Your task to perform on an android device: search for starred emails in the gmail app Image 0: 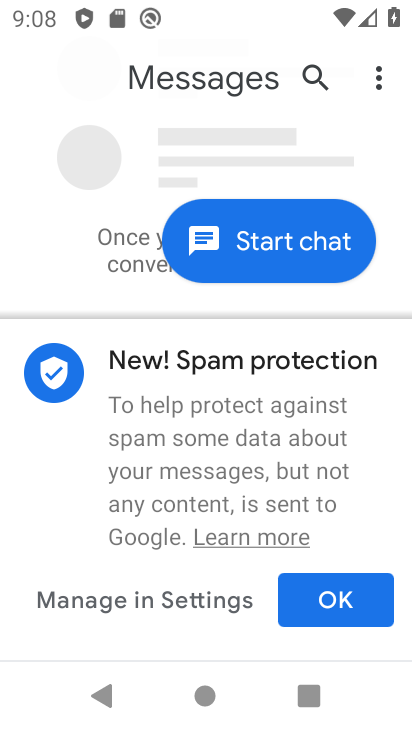
Step 0: press home button
Your task to perform on an android device: search for starred emails in the gmail app Image 1: 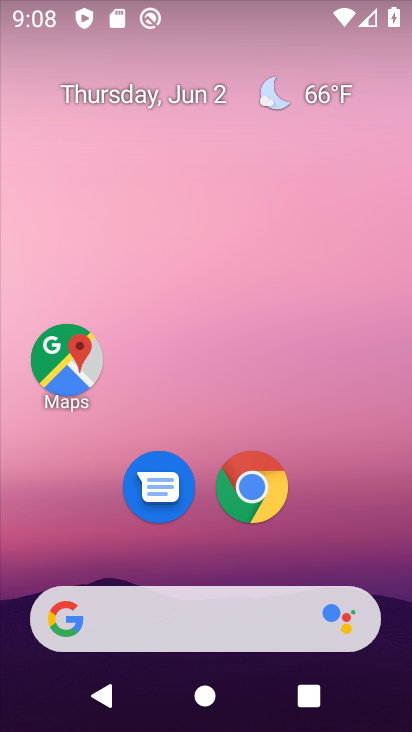
Step 1: drag from (227, 728) to (208, 194)
Your task to perform on an android device: search for starred emails in the gmail app Image 2: 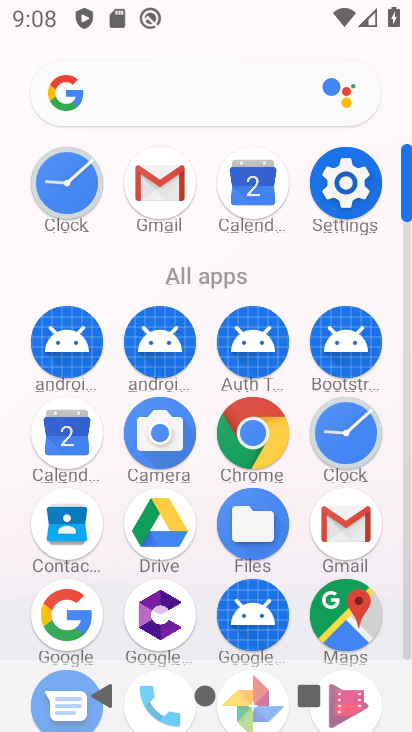
Step 2: click (354, 521)
Your task to perform on an android device: search for starred emails in the gmail app Image 3: 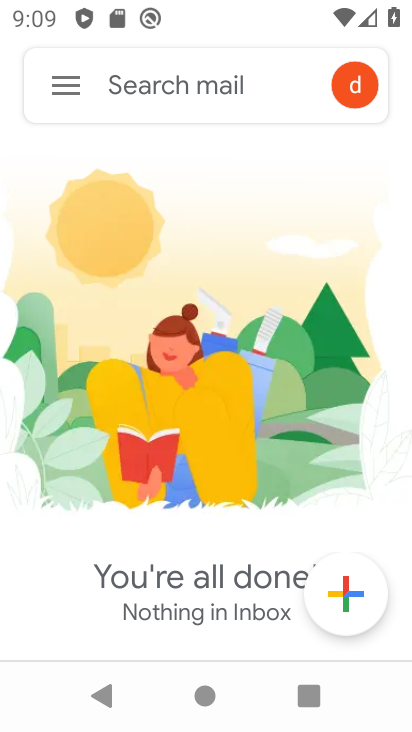
Step 3: click (72, 78)
Your task to perform on an android device: search for starred emails in the gmail app Image 4: 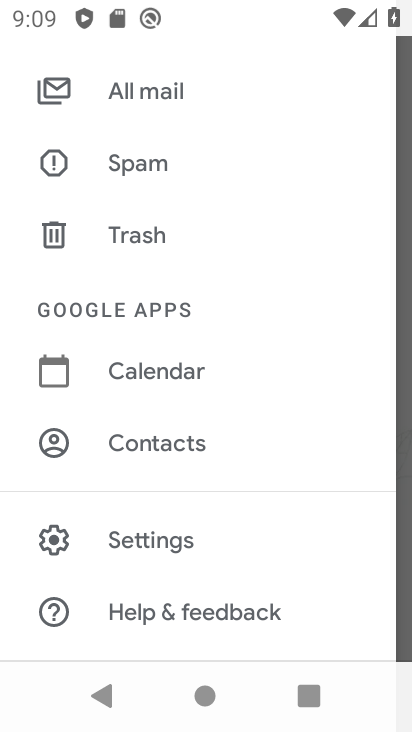
Step 4: drag from (188, 160) to (218, 532)
Your task to perform on an android device: search for starred emails in the gmail app Image 5: 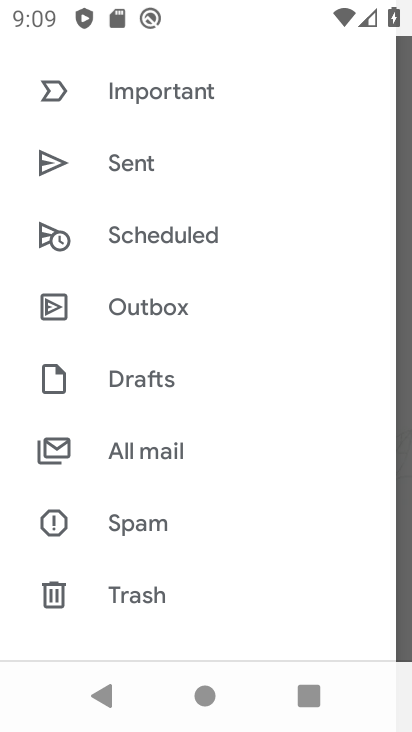
Step 5: drag from (232, 122) to (253, 463)
Your task to perform on an android device: search for starred emails in the gmail app Image 6: 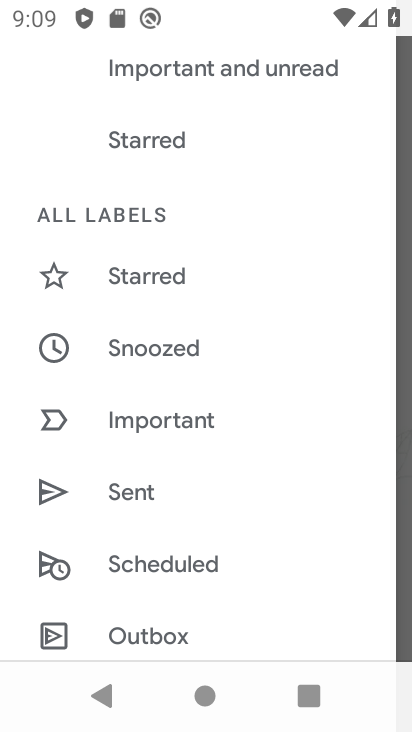
Step 6: click (152, 274)
Your task to perform on an android device: search for starred emails in the gmail app Image 7: 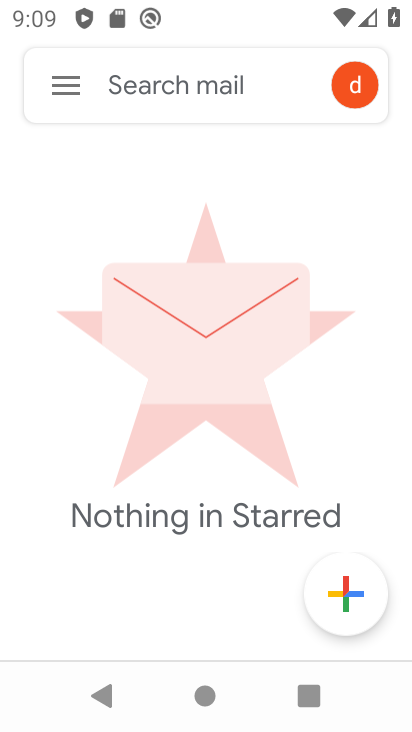
Step 7: task complete